Your task to perform on an android device: When is my next meeting? Image 0: 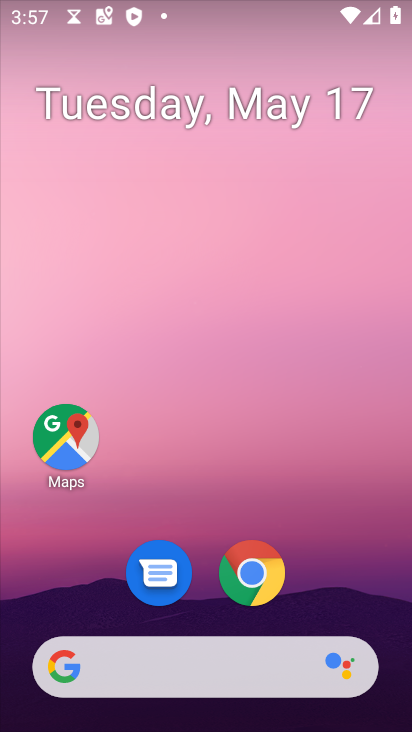
Step 0: drag from (324, 599) to (221, 111)
Your task to perform on an android device: When is my next meeting? Image 1: 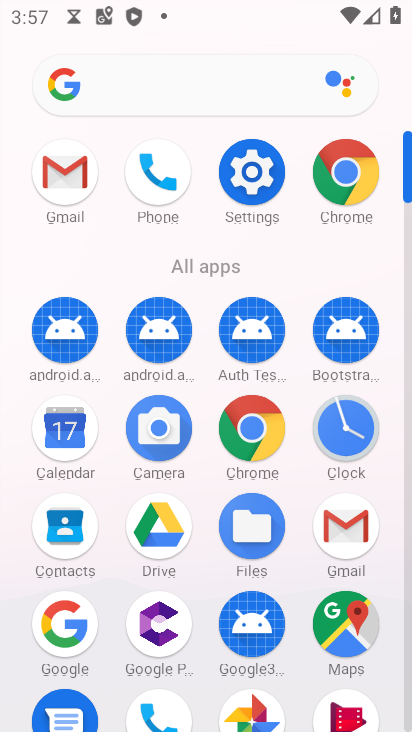
Step 1: click (63, 422)
Your task to perform on an android device: When is my next meeting? Image 2: 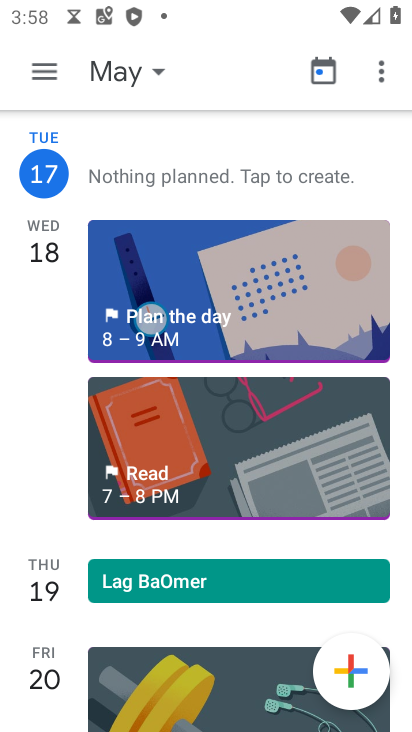
Step 2: task complete